Your task to perform on an android device: Open accessibility settings Image 0: 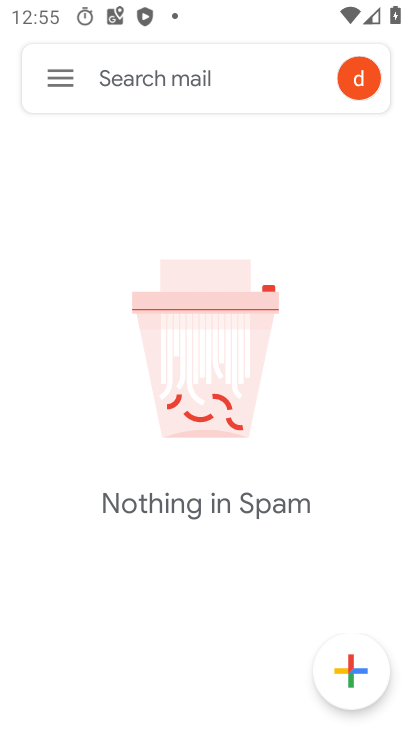
Step 0: press home button
Your task to perform on an android device: Open accessibility settings Image 1: 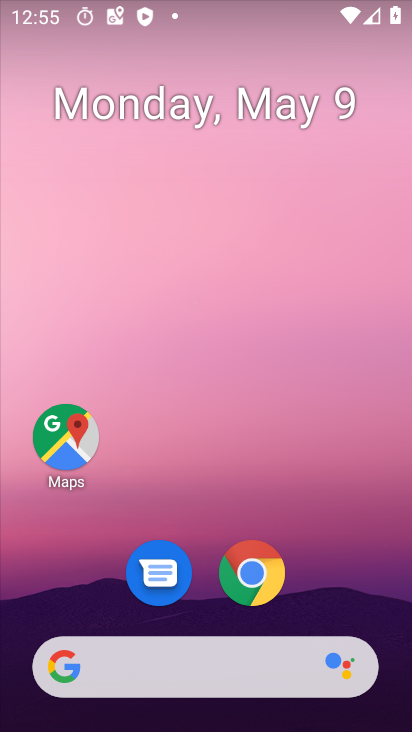
Step 1: drag from (347, 569) to (139, 133)
Your task to perform on an android device: Open accessibility settings Image 2: 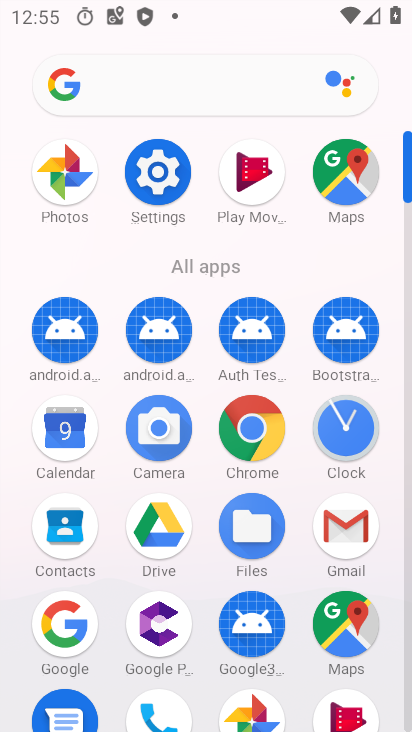
Step 2: click (157, 180)
Your task to perform on an android device: Open accessibility settings Image 3: 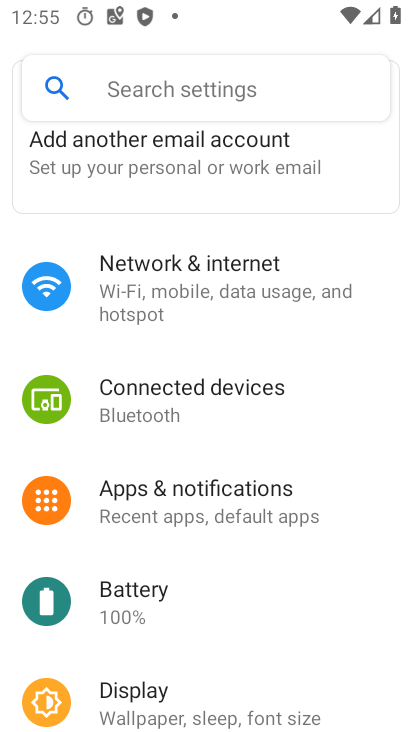
Step 3: drag from (161, 643) to (161, 253)
Your task to perform on an android device: Open accessibility settings Image 4: 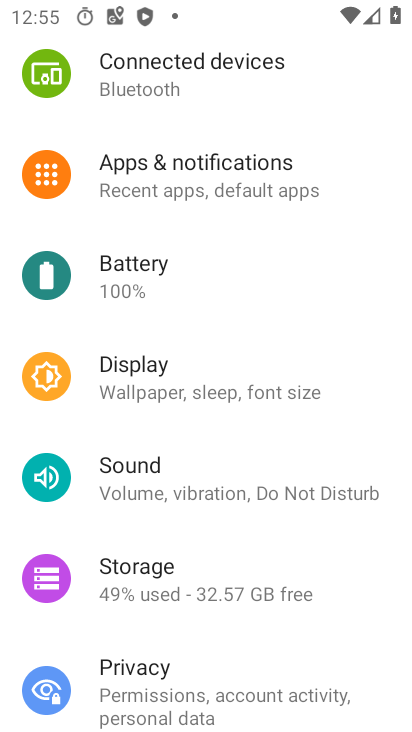
Step 4: drag from (206, 682) to (167, 198)
Your task to perform on an android device: Open accessibility settings Image 5: 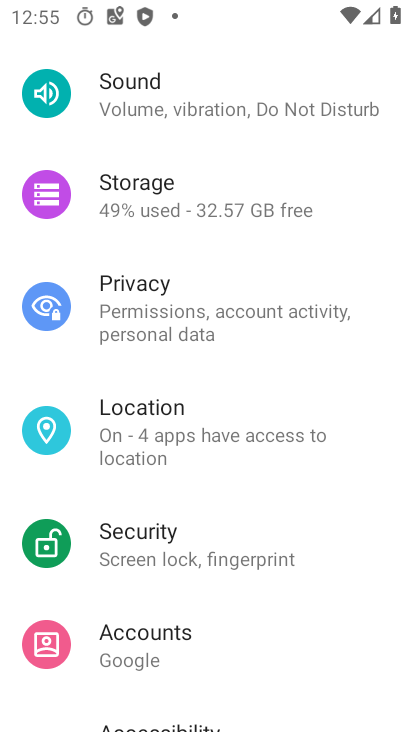
Step 5: drag from (170, 686) to (171, 352)
Your task to perform on an android device: Open accessibility settings Image 6: 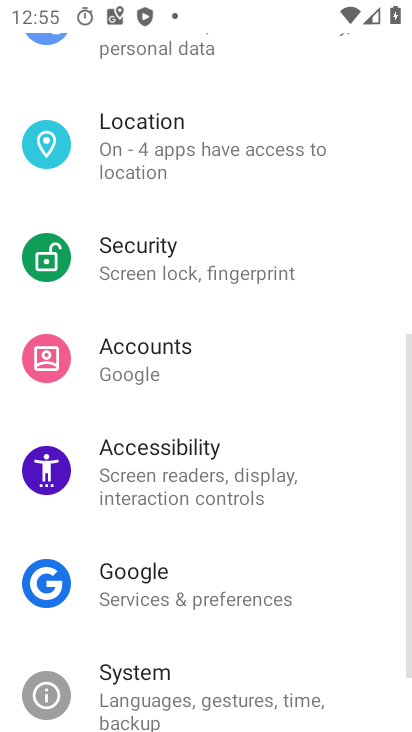
Step 6: click (135, 474)
Your task to perform on an android device: Open accessibility settings Image 7: 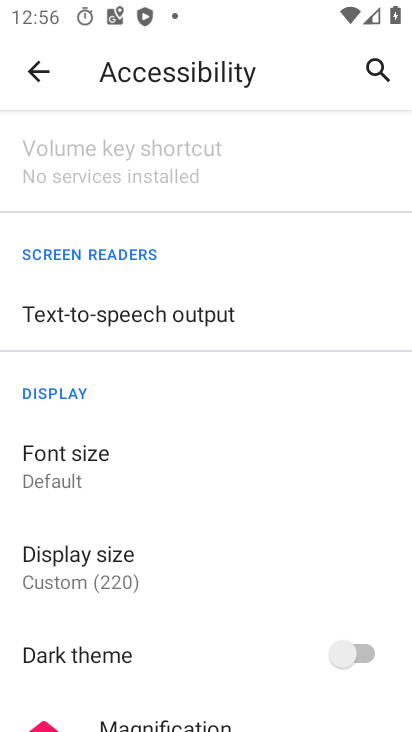
Step 7: task complete